Your task to perform on an android device: Go to Wikipedia Image 0: 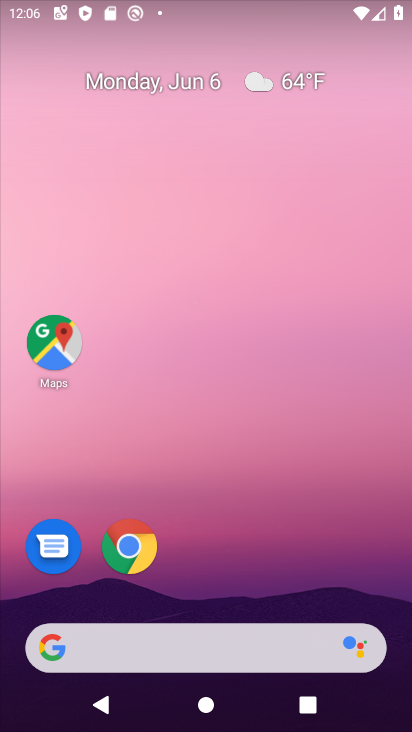
Step 0: drag from (227, 585) to (239, 281)
Your task to perform on an android device: Go to Wikipedia Image 1: 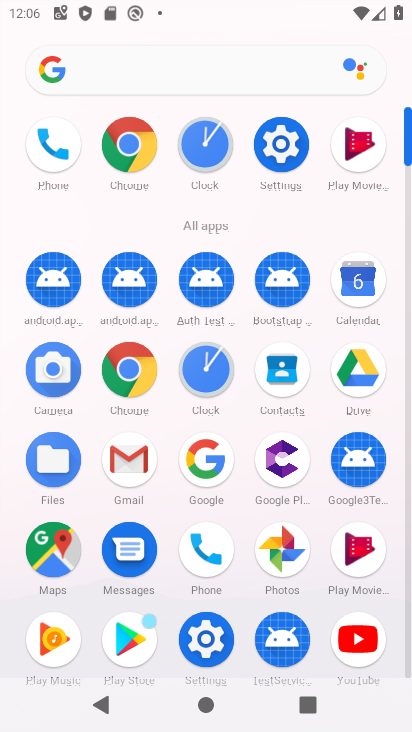
Step 1: click (117, 129)
Your task to perform on an android device: Go to Wikipedia Image 2: 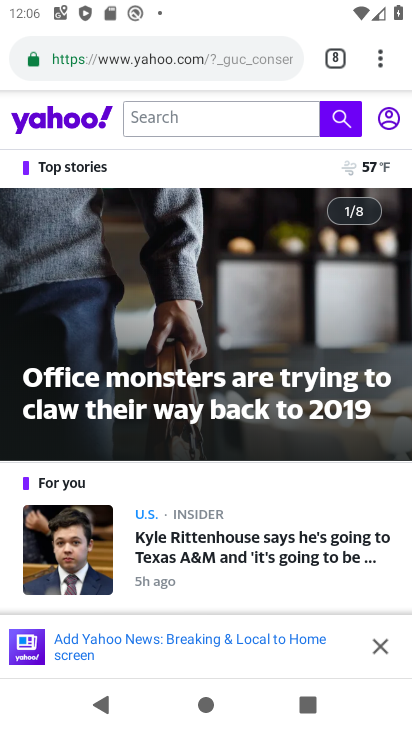
Step 2: click (380, 54)
Your task to perform on an android device: Go to Wikipedia Image 3: 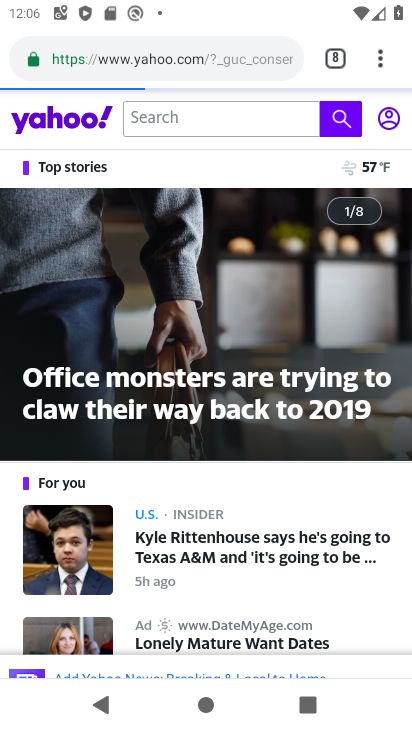
Step 3: click (373, 53)
Your task to perform on an android device: Go to Wikipedia Image 4: 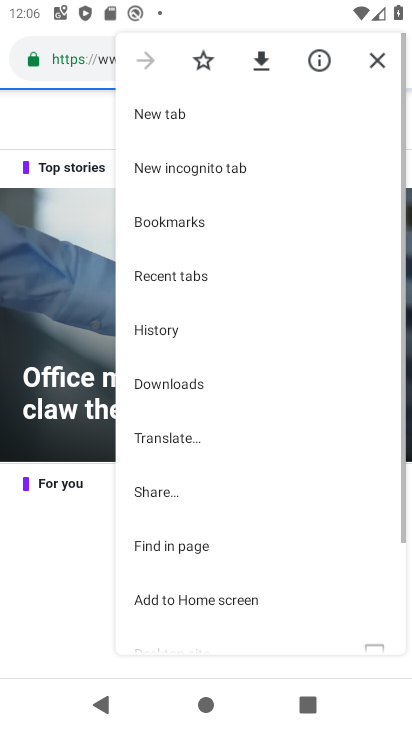
Step 4: click (187, 108)
Your task to perform on an android device: Go to Wikipedia Image 5: 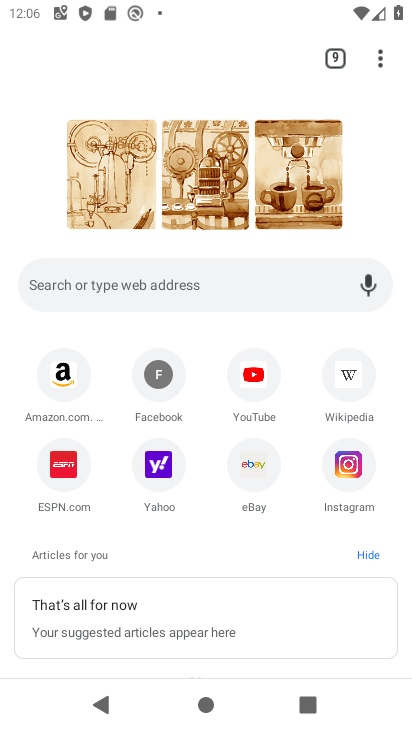
Step 5: click (356, 369)
Your task to perform on an android device: Go to Wikipedia Image 6: 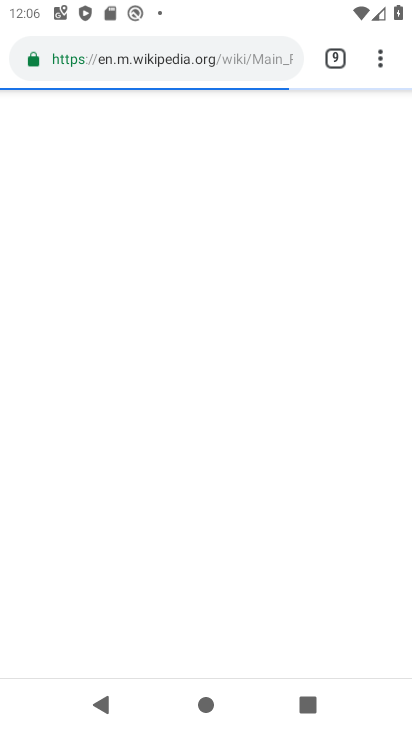
Step 6: click (355, 370)
Your task to perform on an android device: Go to Wikipedia Image 7: 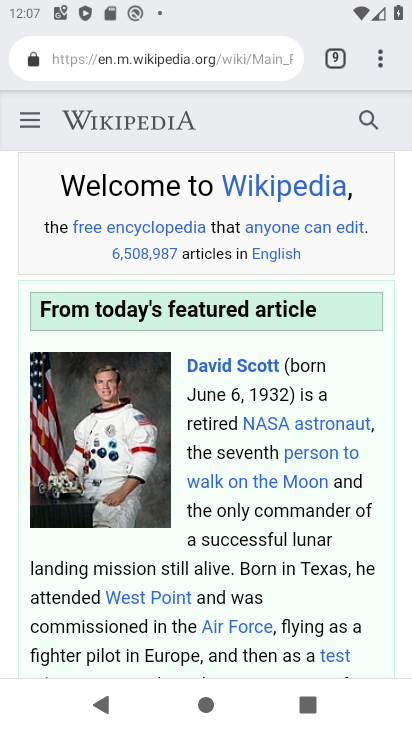
Step 7: task complete